Your task to perform on an android device: Open maps Image 0: 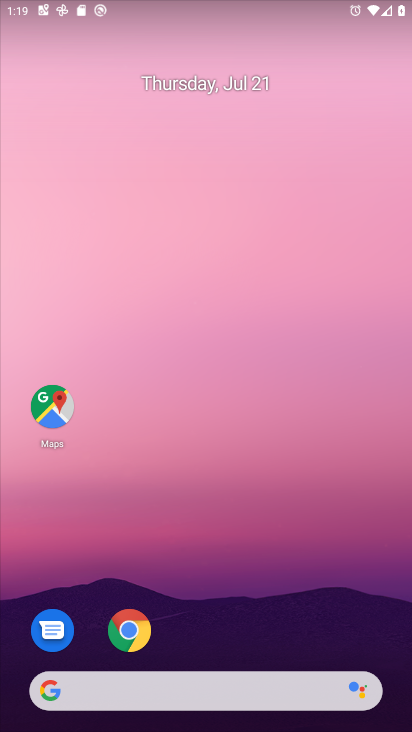
Step 0: click (59, 405)
Your task to perform on an android device: Open maps Image 1: 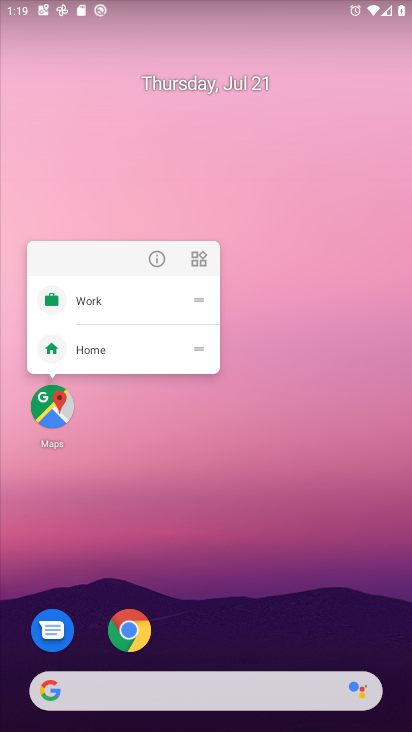
Step 1: click (153, 254)
Your task to perform on an android device: Open maps Image 2: 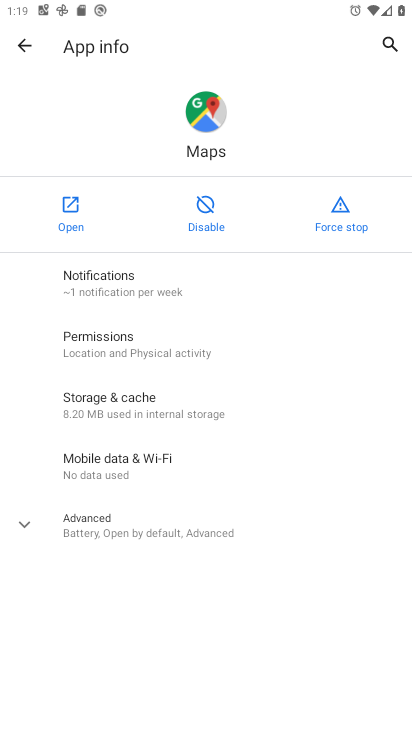
Step 2: click (69, 215)
Your task to perform on an android device: Open maps Image 3: 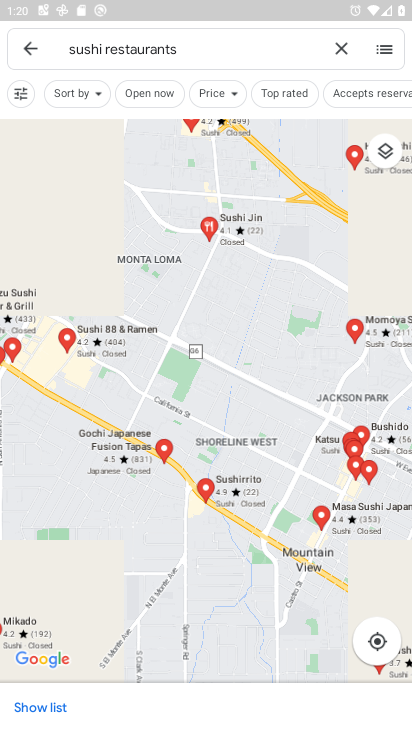
Step 3: task complete